Your task to perform on an android device: check google app version Image 0: 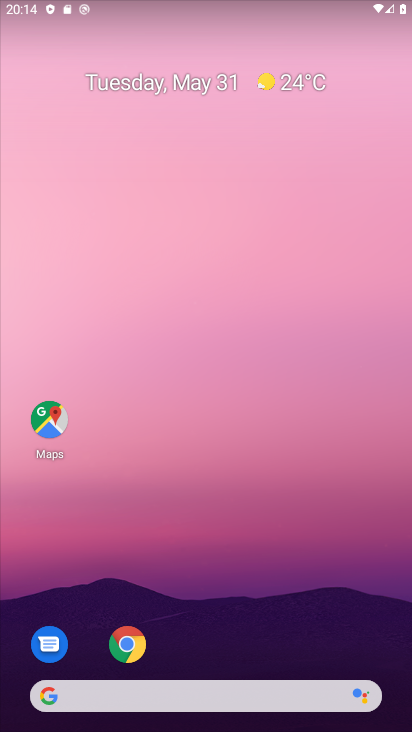
Step 0: drag from (273, 644) to (278, 173)
Your task to perform on an android device: check google app version Image 1: 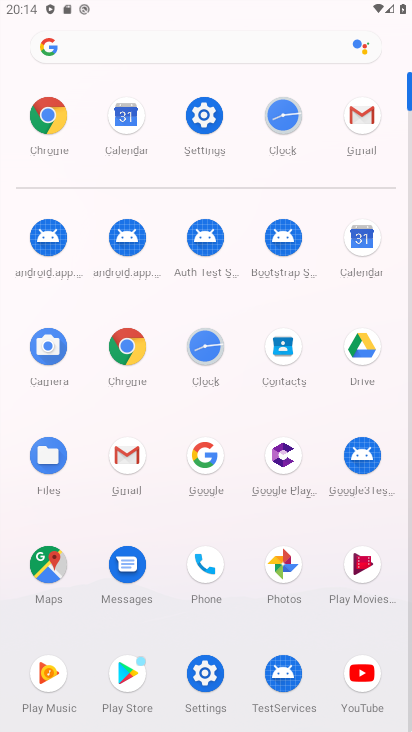
Step 1: click (194, 455)
Your task to perform on an android device: check google app version Image 2: 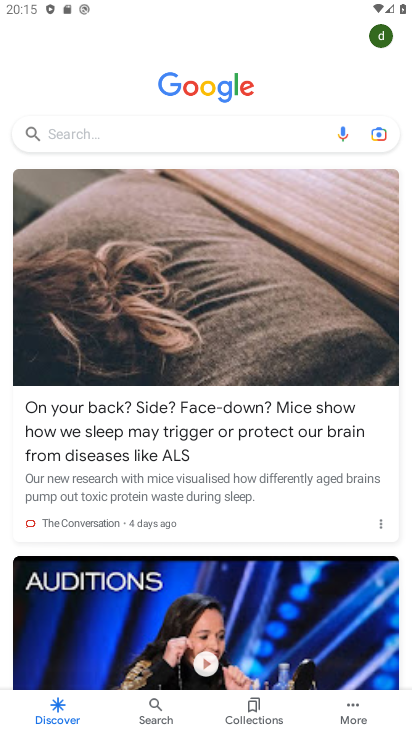
Step 2: click (358, 714)
Your task to perform on an android device: check google app version Image 3: 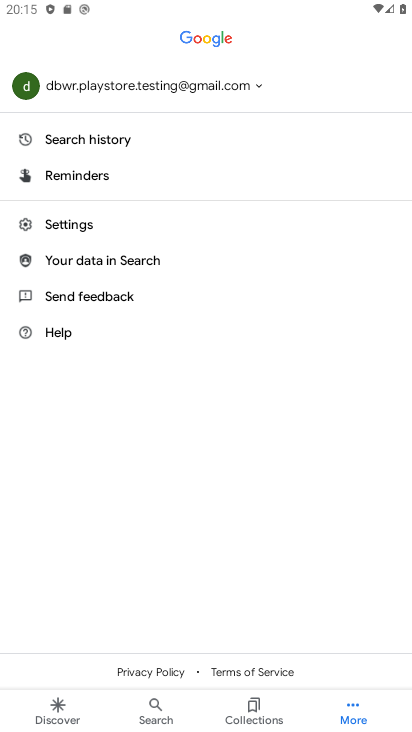
Step 3: click (76, 217)
Your task to perform on an android device: check google app version Image 4: 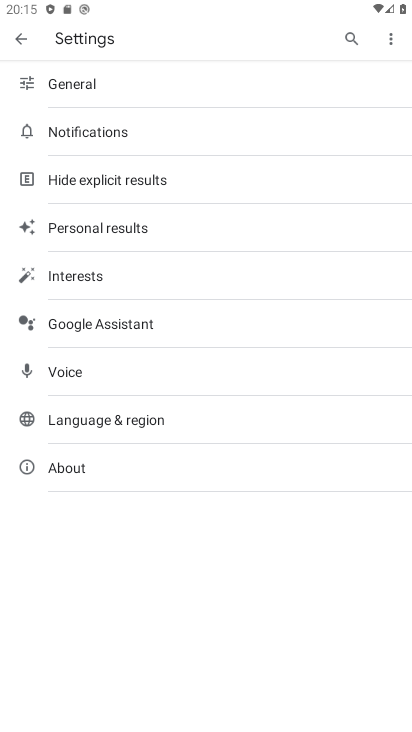
Step 4: click (112, 470)
Your task to perform on an android device: check google app version Image 5: 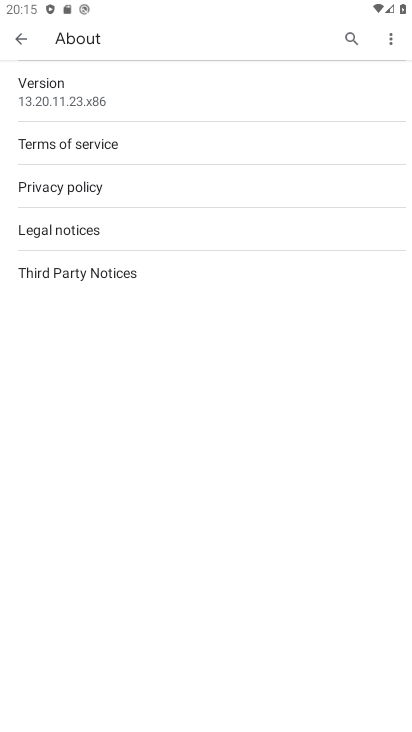
Step 5: task complete